Your task to perform on an android device: Go to internet settings Image 0: 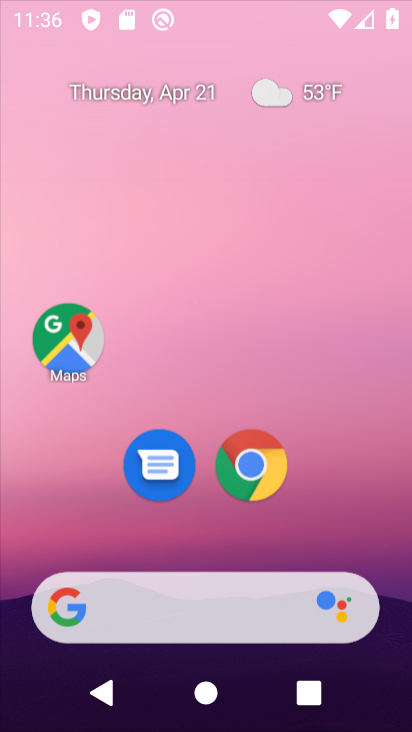
Step 0: click (313, 27)
Your task to perform on an android device: Go to internet settings Image 1: 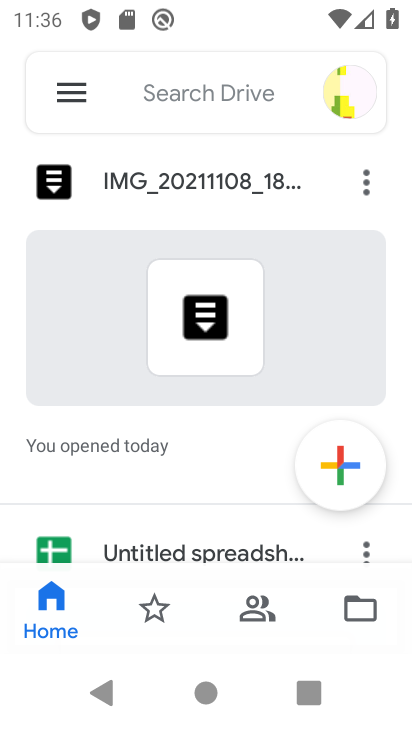
Step 1: press back button
Your task to perform on an android device: Go to internet settings Image 2: 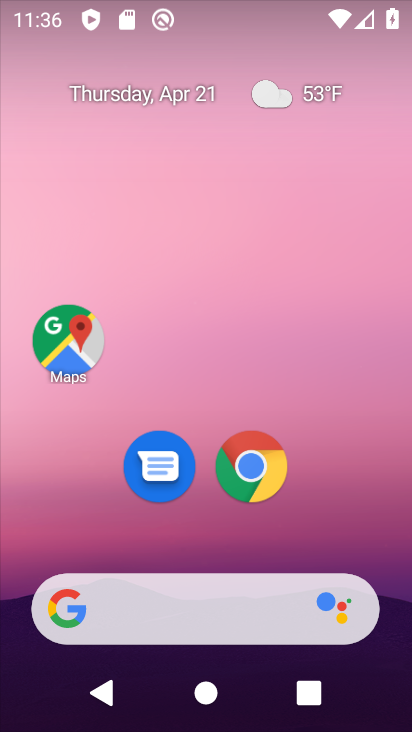
Step 2: drag from (339, 521) to (186, 4)
Your task to perform on an android device: Go to internet settings Image 3: 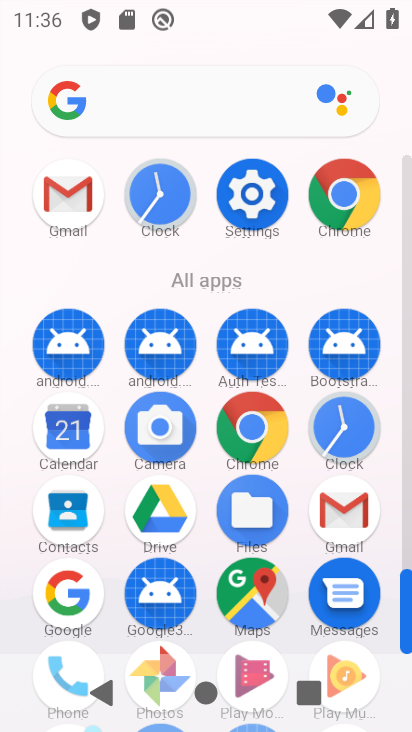
Step 3: click (250, 190)
Your task to perform on an android device: Go to internet settings Image 4: 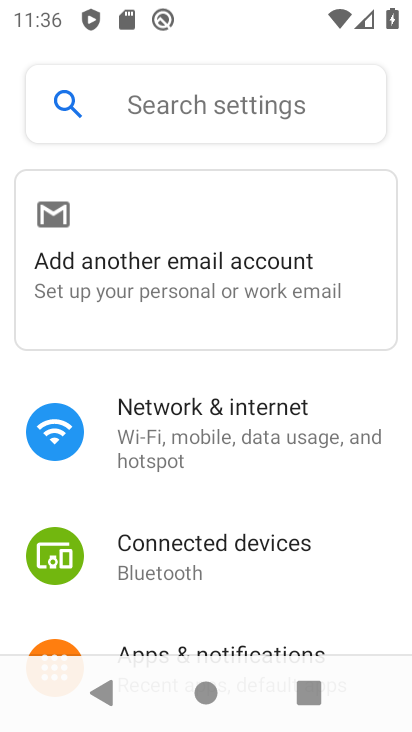
Step 4: drag from (335, 464) to (352, 178)
Your task to perform on an android device: Go to internet settings Image 5: 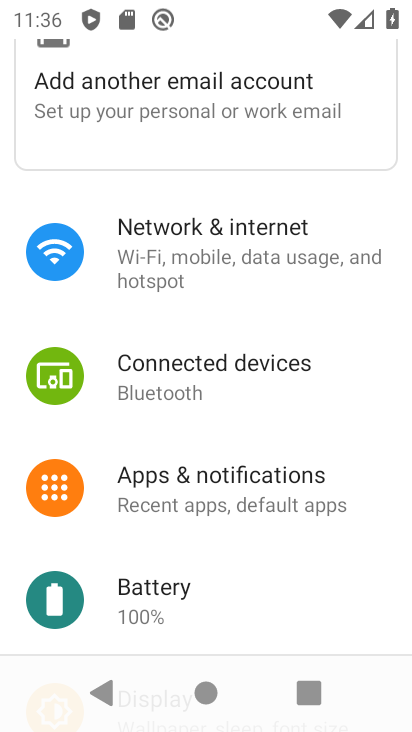
Step 5: click (290, 242)
Your task to perform on an android device: Go to internet settings Image 6: 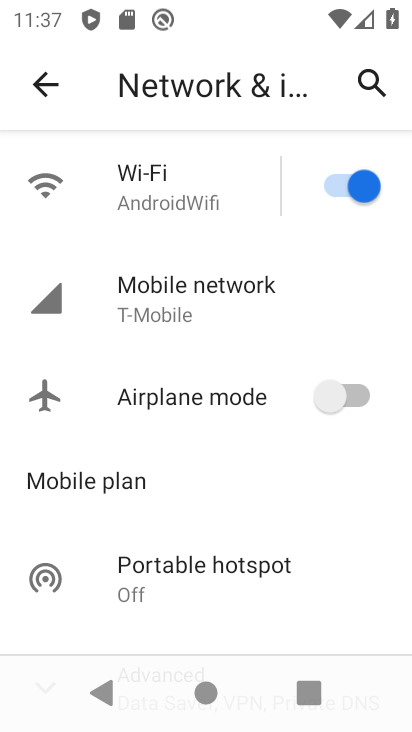
Step 6: drag from (175, 522) to (201, 340)
Your task to perform on an android device: Go to internet settings Image 7: 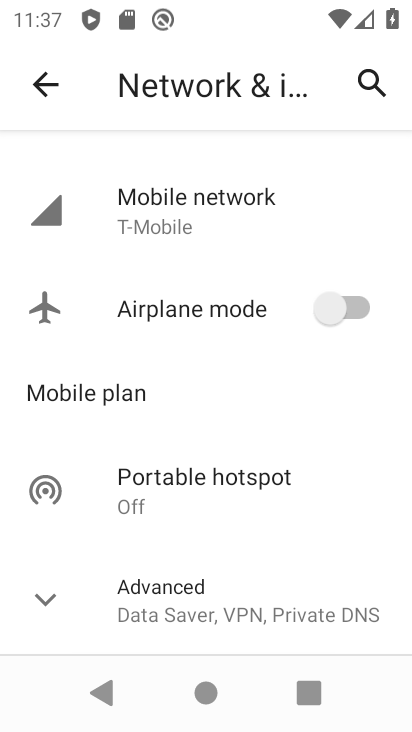
Step 7: drag from (185, 541) to (199, 262)
Your task to perform on an android device: Go to internet settings Image 8: 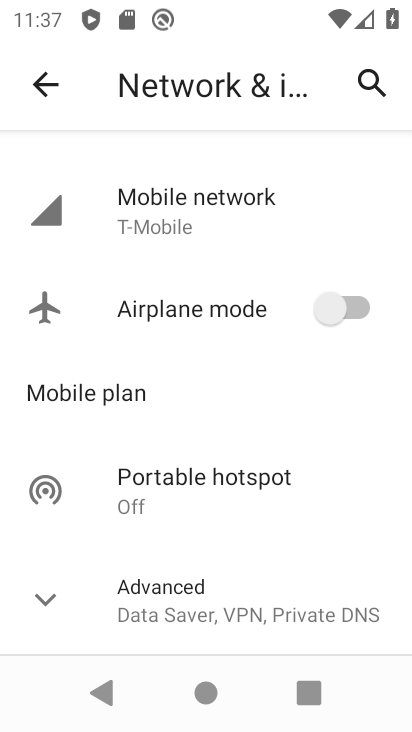
Step 8: click (48, 608)
Your task to perform on an android device: Go to internet settings Image 9: 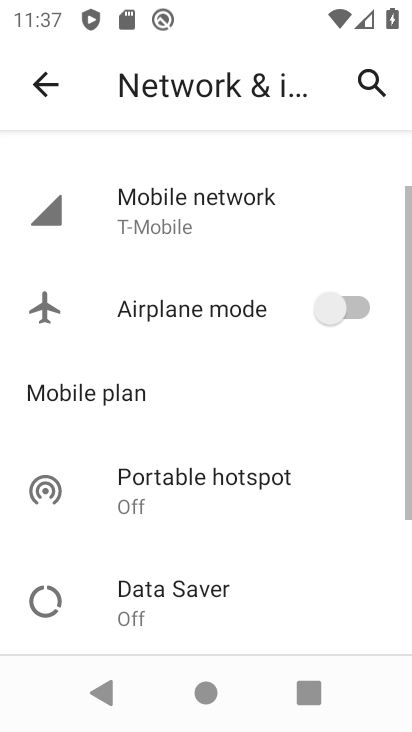
Step 9: task complete